Your task to perform on an android device: toggle notifications settings in the gmail app Image 0: 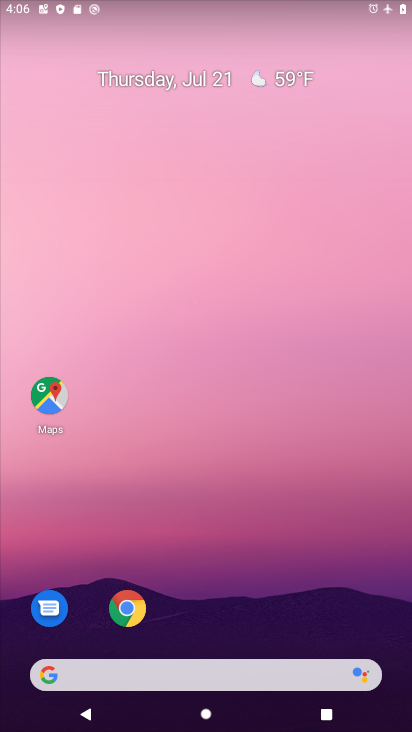
Step 0: drag from (331, 647) to (411, 268)
Your task to perform on an android device: toggle notifications settings in the gmail app Image 1: 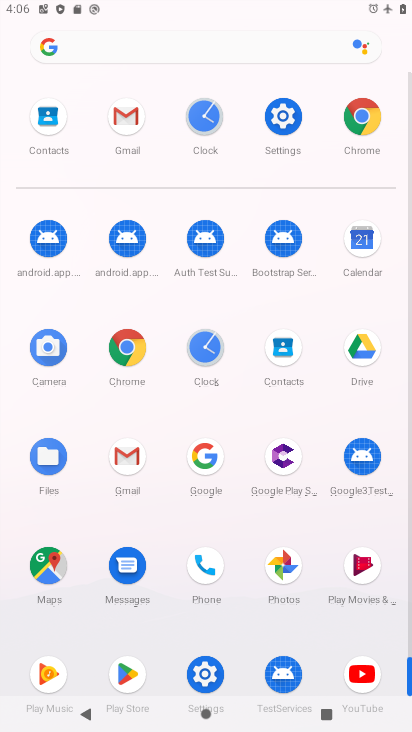
Step 1: click (120, 453)
Your task to perform on an android device: toggle notifications settings in the gmail app Image 2: 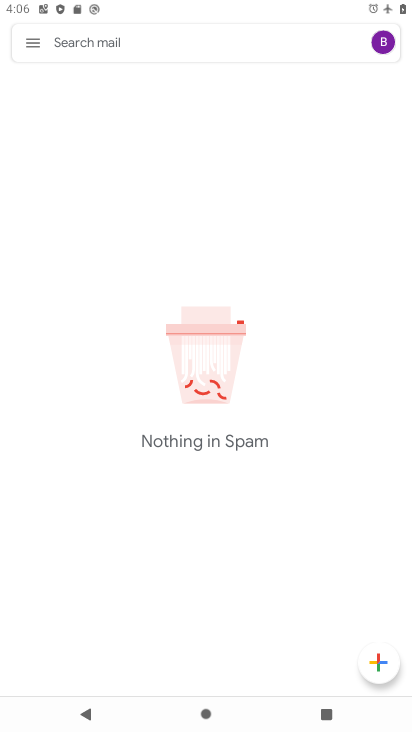
Step 2: click (29, 49)
Your task to perform on an android device: toggle notifications settings in the gmail app Image 3: 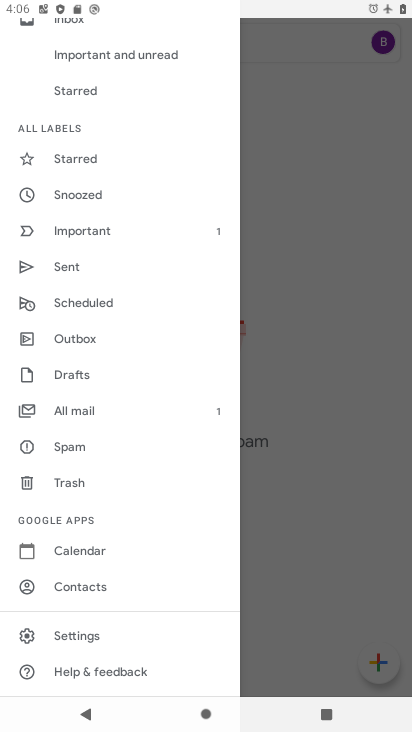
Step 3: click (74, 633)
Your task to perform on an android device: toggle notifications settings in the gmail app Image 4: 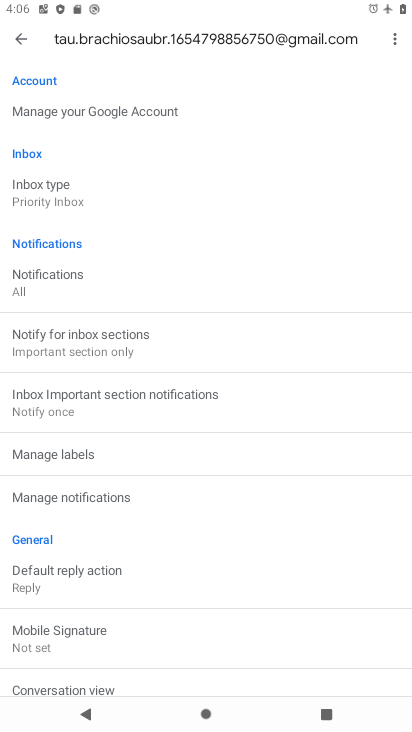
Step 4: click (98, 500)
Your task to perform on an android device: toggle notifications settings in the gmail app Image 5: 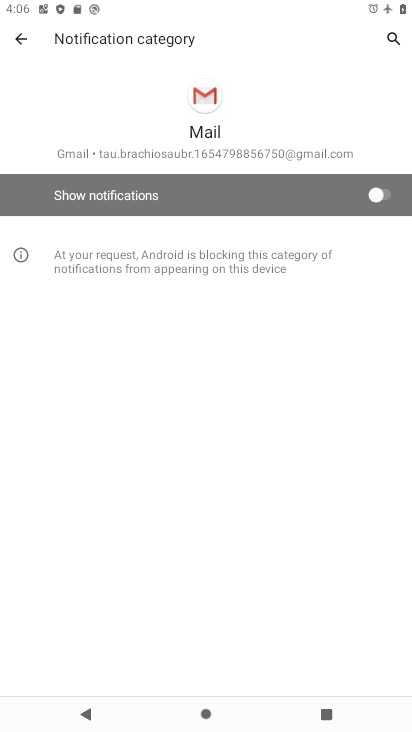
Step 5: click (373, 197)
Your task to perform on an android device: toggle notifications settings in the gmail app Image 6: 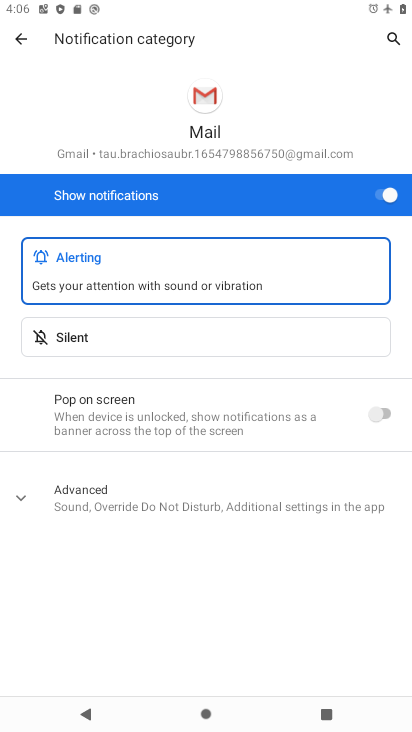
Step 6: press home button
Your task to perform on an android device: toggle notifications settings in the gmail app Image 7: 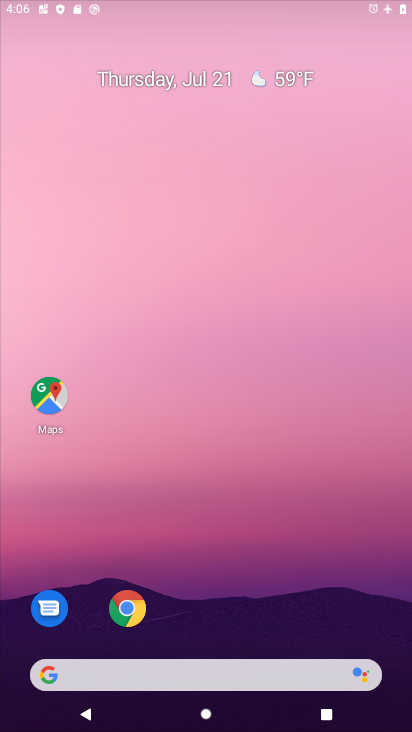
Step 7: drag from (263, 676) to (341, 0)
Your task to perform on an android device: toggle notifications settings in the gmail app Image 8: 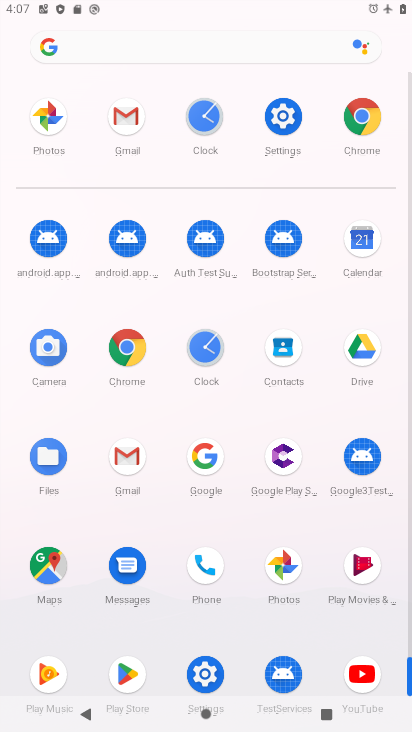
Step 8: click (142, 462)
Your task to perform on an android device: toggle notifications settings in the gmail app Image 9: 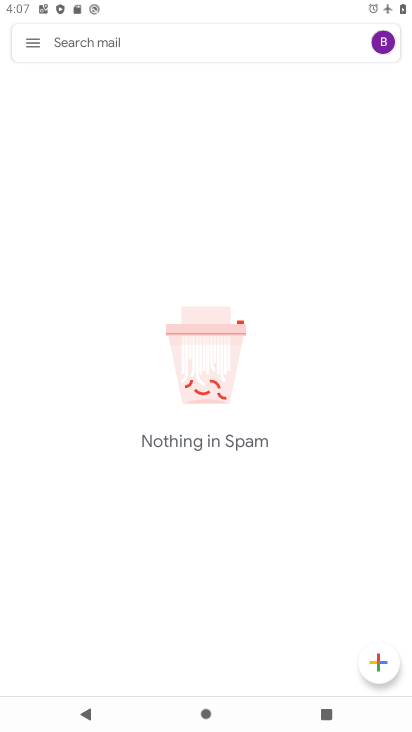
Step 9: click (26, 49)
Your task to perform on an android device: toggle notifications settings in the gmail app Image 10: 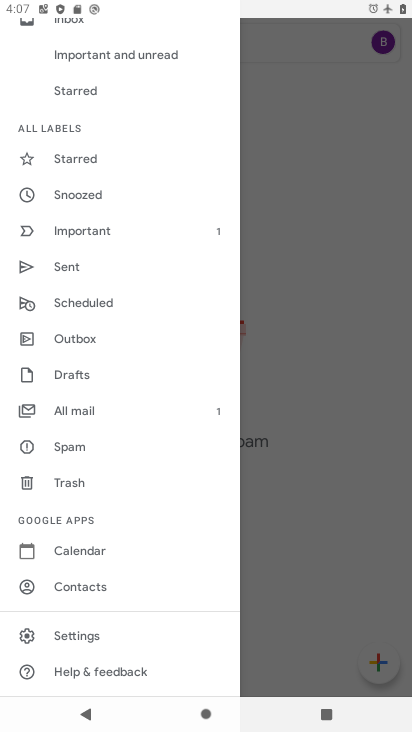
Step 10: click (90, 631)
Your task to perform on an android device: toggle notifications settings in the gmail app Image 11: 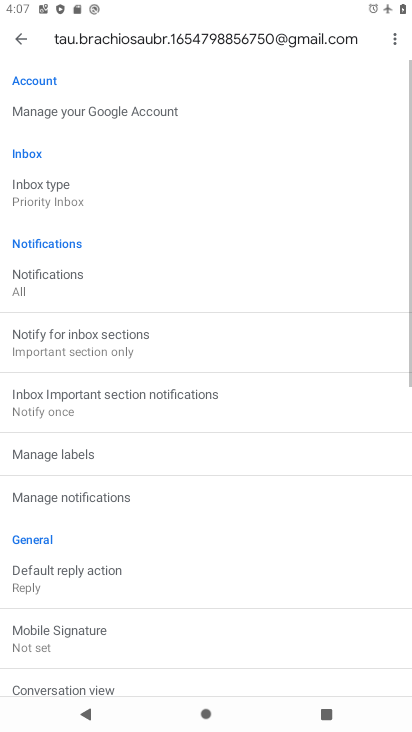
Step 11: click (133, 496)
Your task to perform on an android device: toggle notifications settings in the gmail app Image 12: 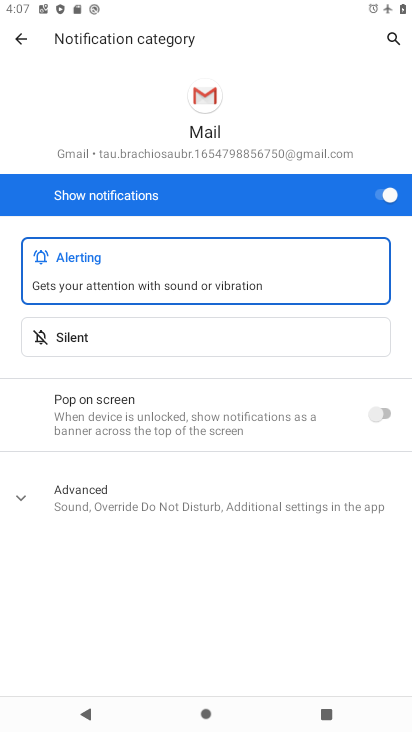
Step 12: click (381, 198)
Your task to perform on an android device: toggle notifications settings in the gmail app Image 13: 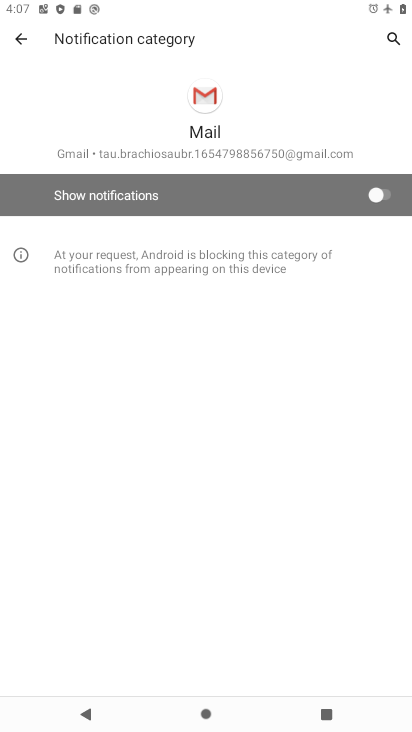
Step 13: task complete